Your task to perform on an android device: check google app version Image 0: 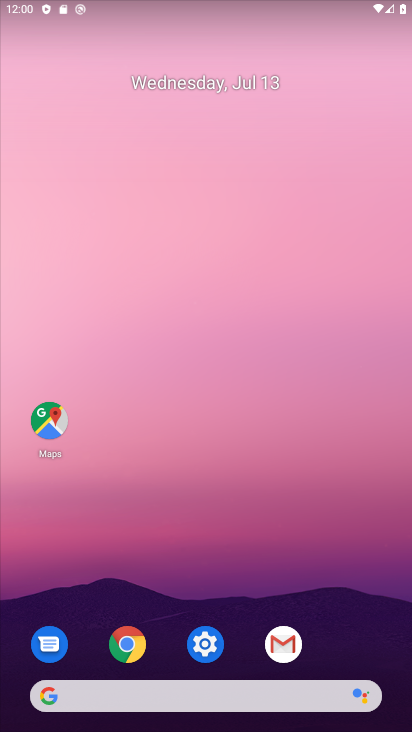
Step 0: drag from (240, 709) to (79, 287)
Your task to perform on an android device: check google app version Image 1: 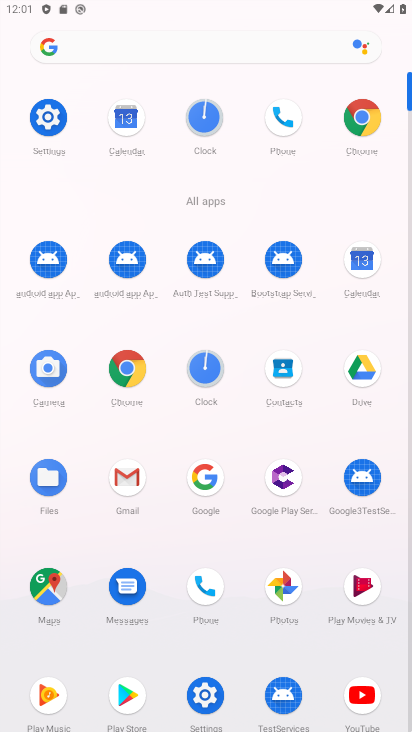
Step 1: click (352, 132)
Your task to perform on an android device: check google app version Image 2: 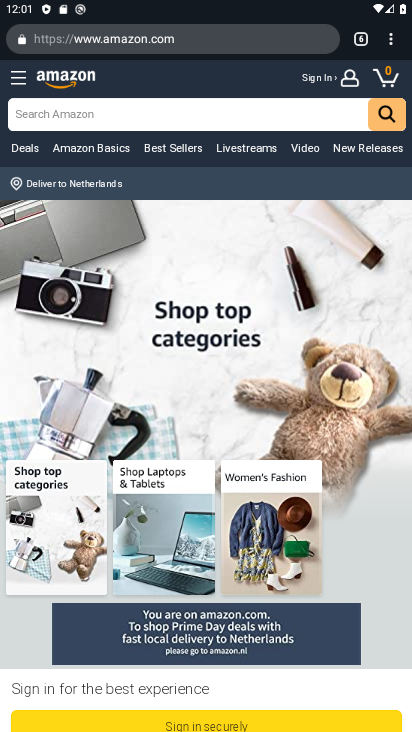
Step 2: click (390, 48)
Your task to perform on an android device: check google app version Image 3: 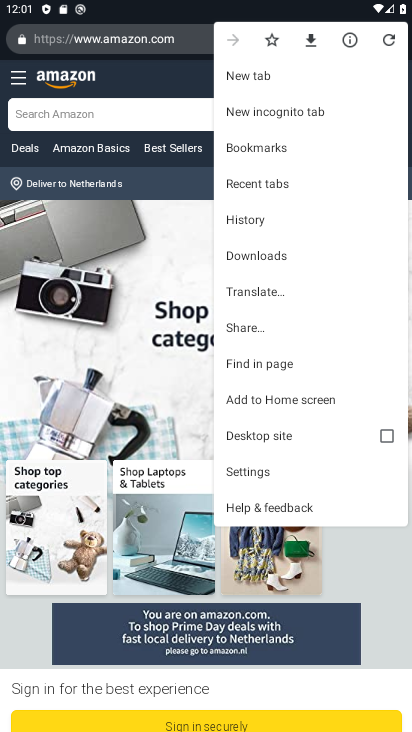
Step 3: click (278, 469)
Your task to perform on an android device: check google app version Image 4: 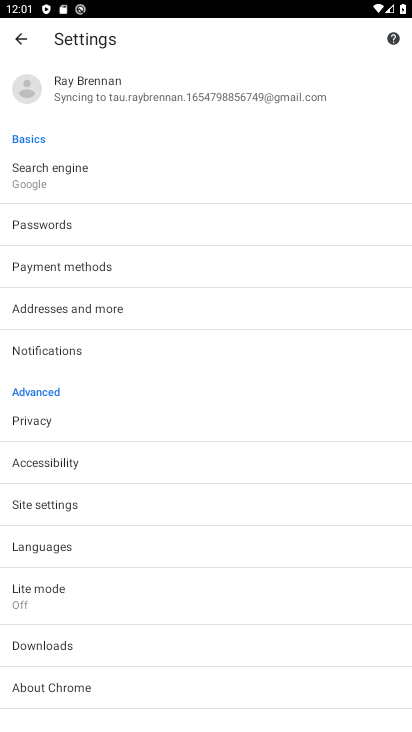
Step 4: click (83, 684)
Your task to perform on an android device: check google app version Image 5: 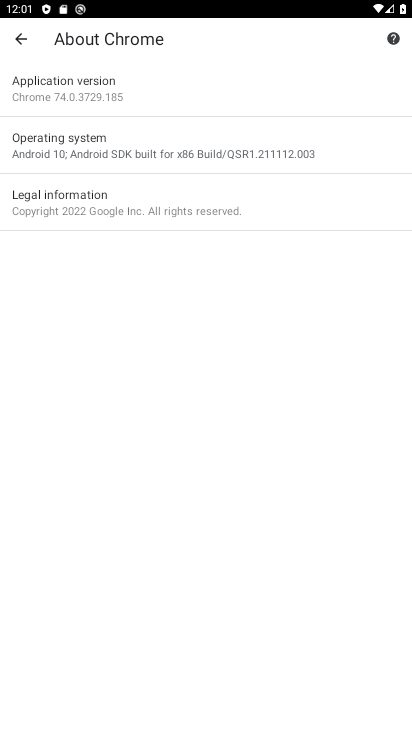
Step 5: click (38, 92)
Your task to perform on an android device: check google app version Image 6: 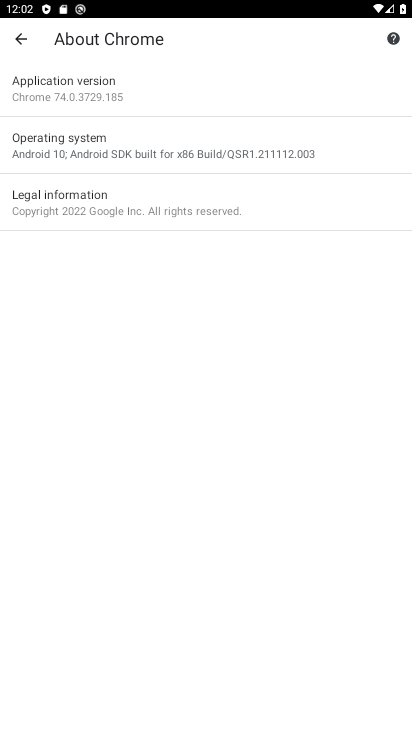
Step 6: task complete